Your task to perform on an android device: change keyboard looks Image 0: 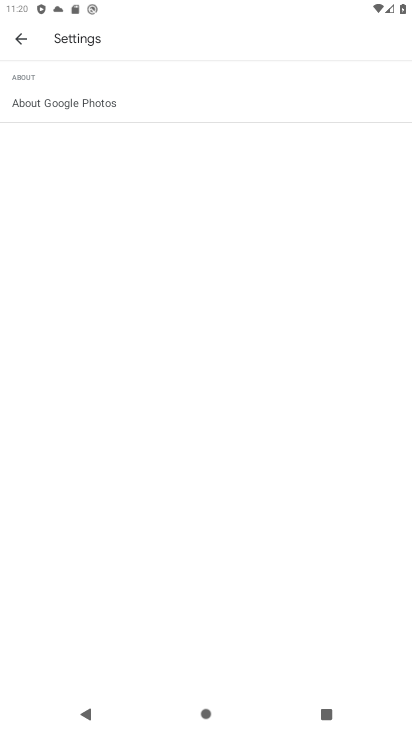
Step 0: press home button
Your task to perform on an android device: change keyboard looks Image 1: 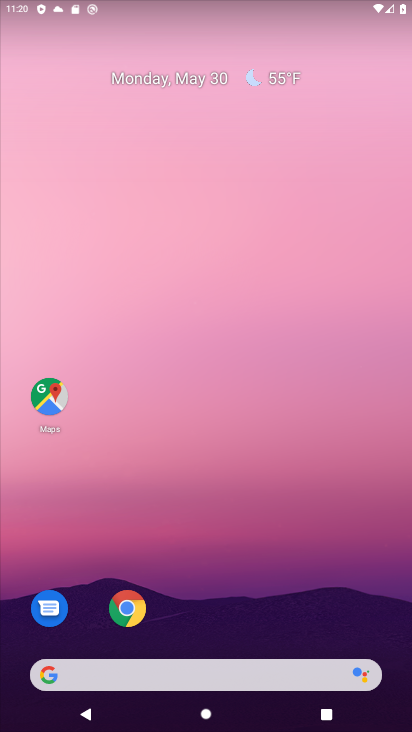
Step 1: drag from (262, 640) to (221, 35)
Your task to perform on an android device: change keyboard looks Image 2: 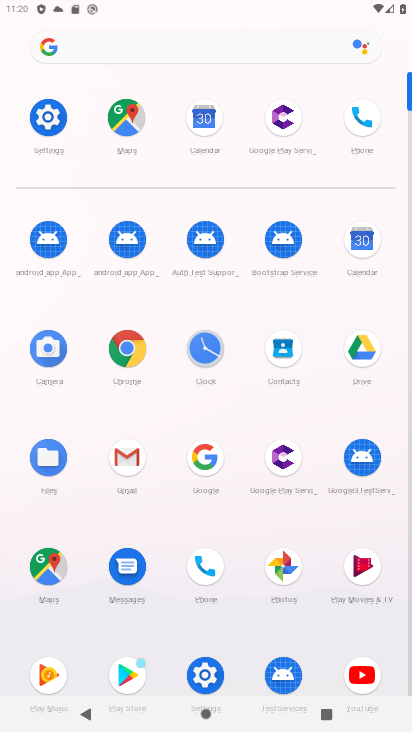
Step 2: click (52, 130)
Your task to perform on an android device: change keyboard looks Image 3: 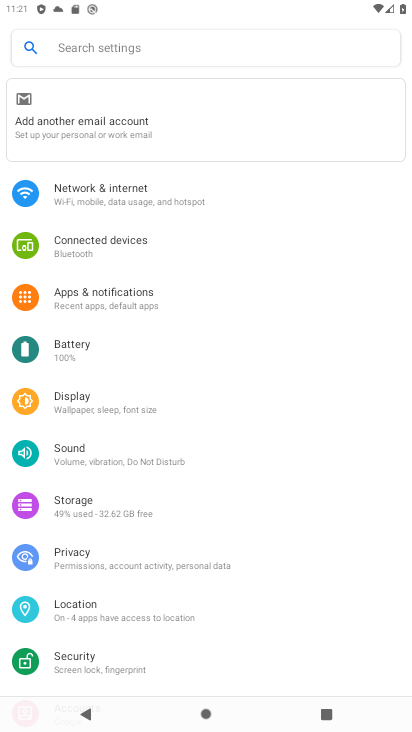
Step 3: drag from (253, 592) to (246, 427)
Your task to perform on an android device: change keyboard looks Image 4: 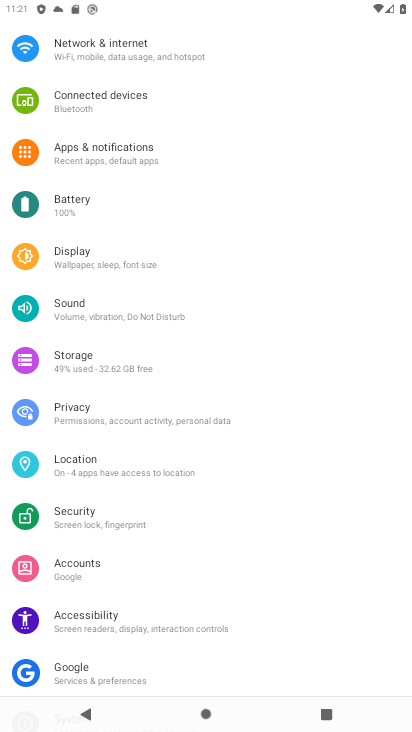
Step 4: drag from (239, 552) to (221, 244)
Your task to perform on an android device: change keyboard looks Image 5: 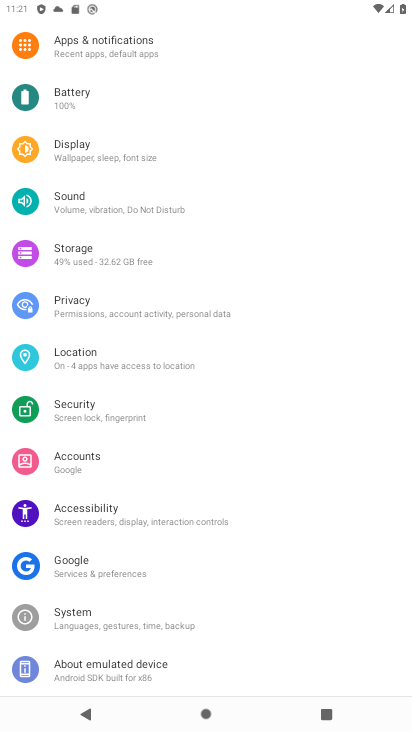
Step 5: click (77, 621)
Your task to perform on an android device: change keyboard looks Image 6: 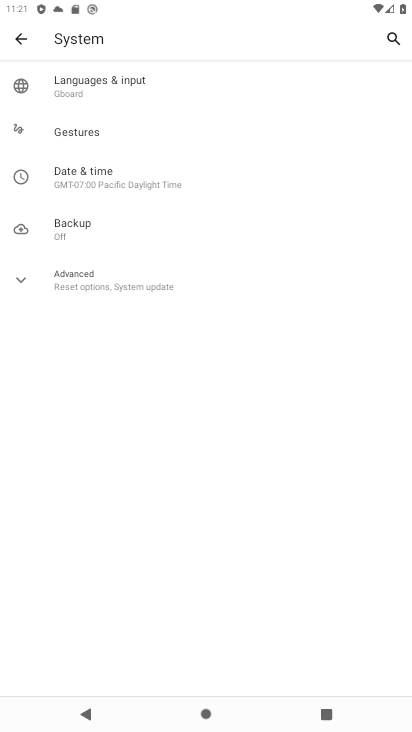
Step 6: click (79, 95)
Your task to perform on an android device: change keyboard looks Image 7: 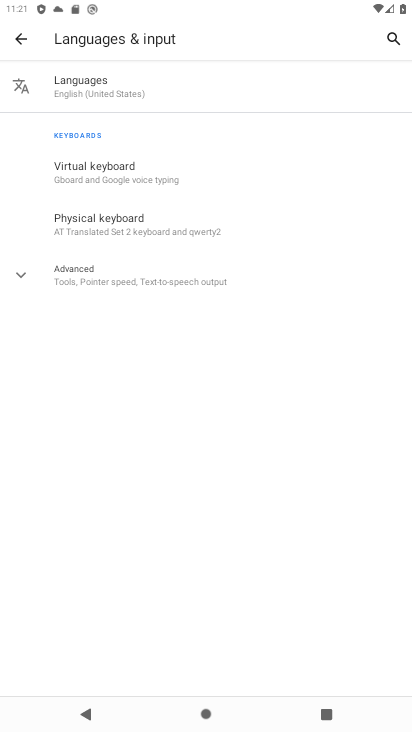
Step 7: click (88, 173)
Your task to perform on an android device: change keyboard looks Image 8: 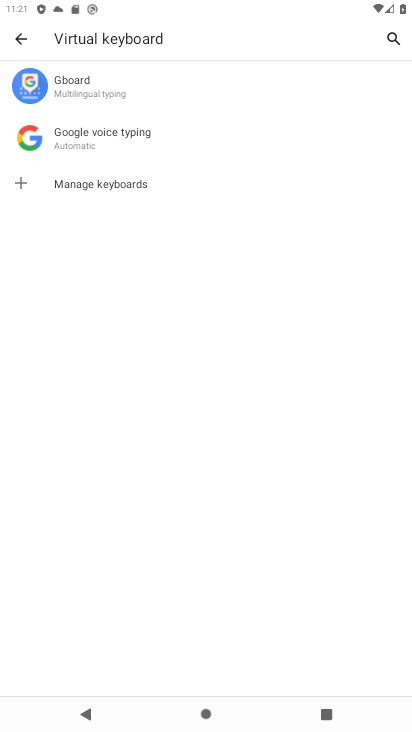
Step 8: click (75, 90)
Your task to perform on an android device: change keyboard looks Image 9: 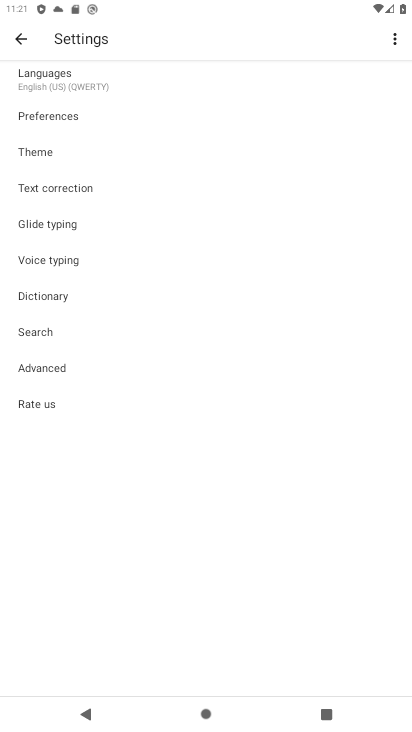
Step 9: click (33, 156)
Your task to perform on an android device: change keyboard looks Image 10: 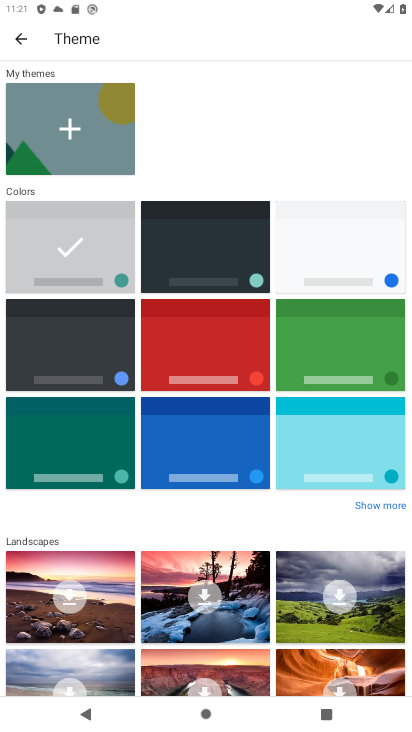
Step 10: click (334, 261)
Your task to perform on an android device: change keyboard looks Image 11: 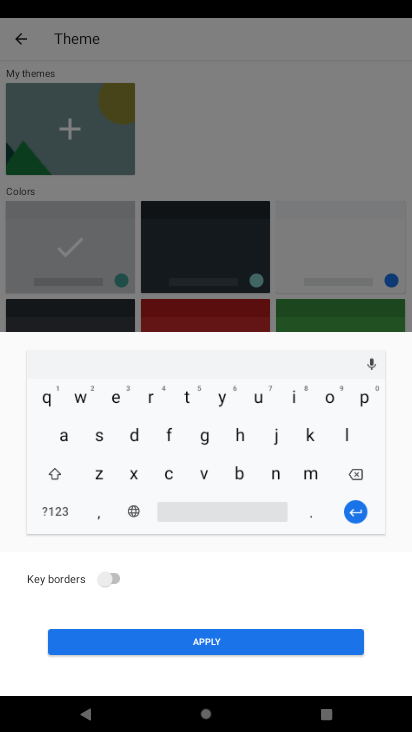
Step 11: click (101, 578)
Your task to perform on an android device: change keyboard looks Image 12: 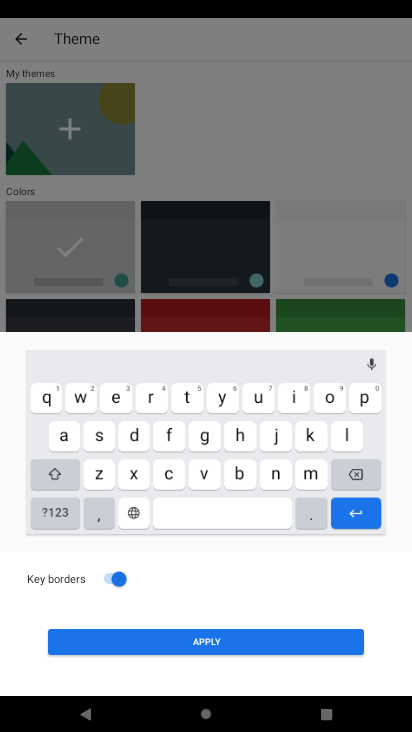
Step 12: click (166, 642)
Your task to perform on an android device: change keyboard looks Image 13: 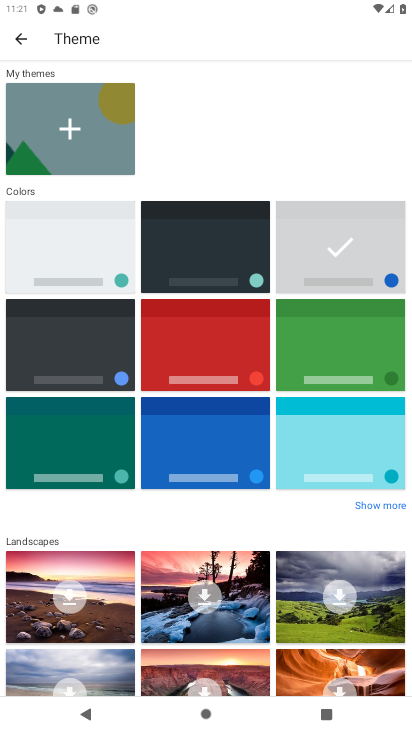
Step 13: task complete